Your task to perform on an android device: Go to Yahoo.com Image 0: 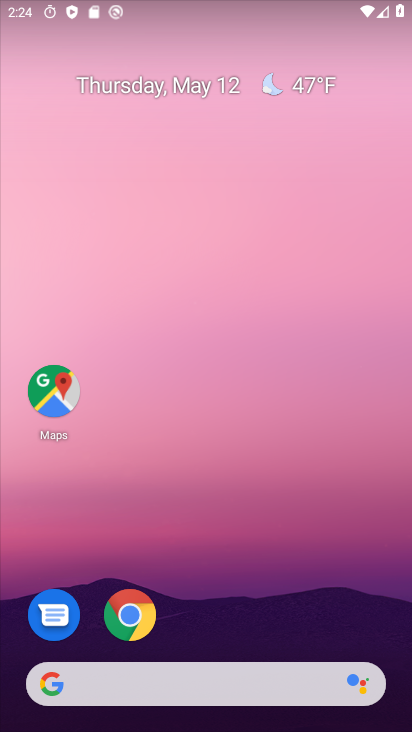
Step 0: click (136, 612)
Your task to perform on an android device: Go to Yahoo.com Image 1: 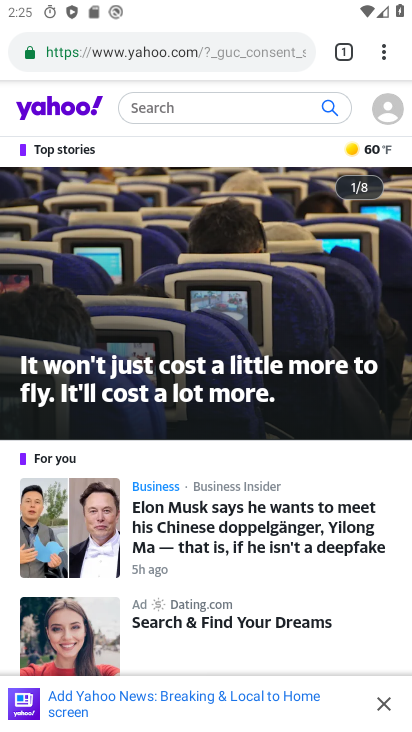
Step 1: task complete